Your task to perform on an android device: manage bookmarks in the chrome app Image 0: 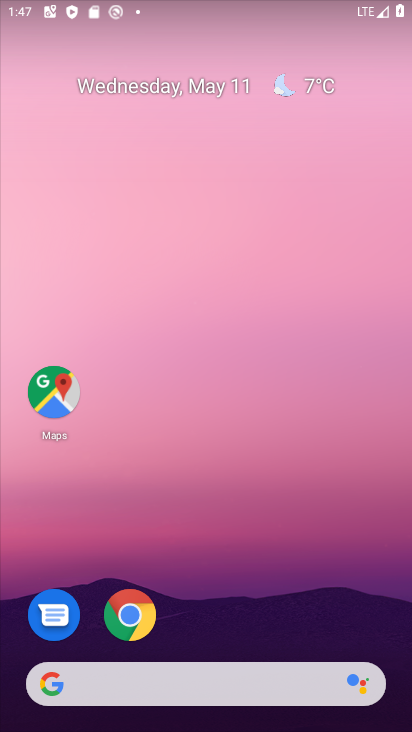
Step 0: click (134, 616)
Your task to perform on an android device: manage bookmarks in the chrome app Image 1: 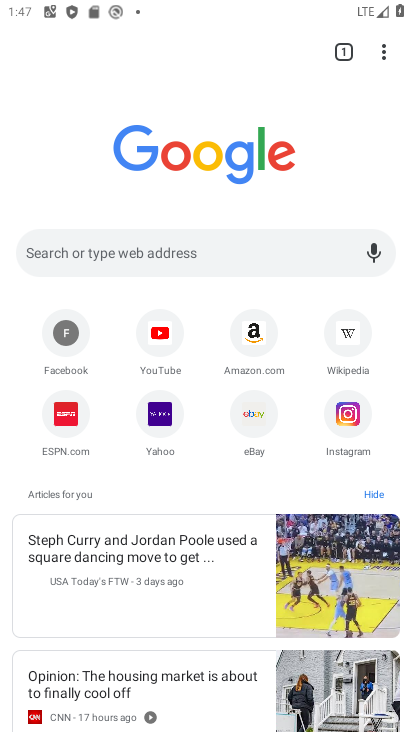
Step 1: task complete